Your task to perform on an android device: install app "ZOOM Cloud Meetings" Image 0: 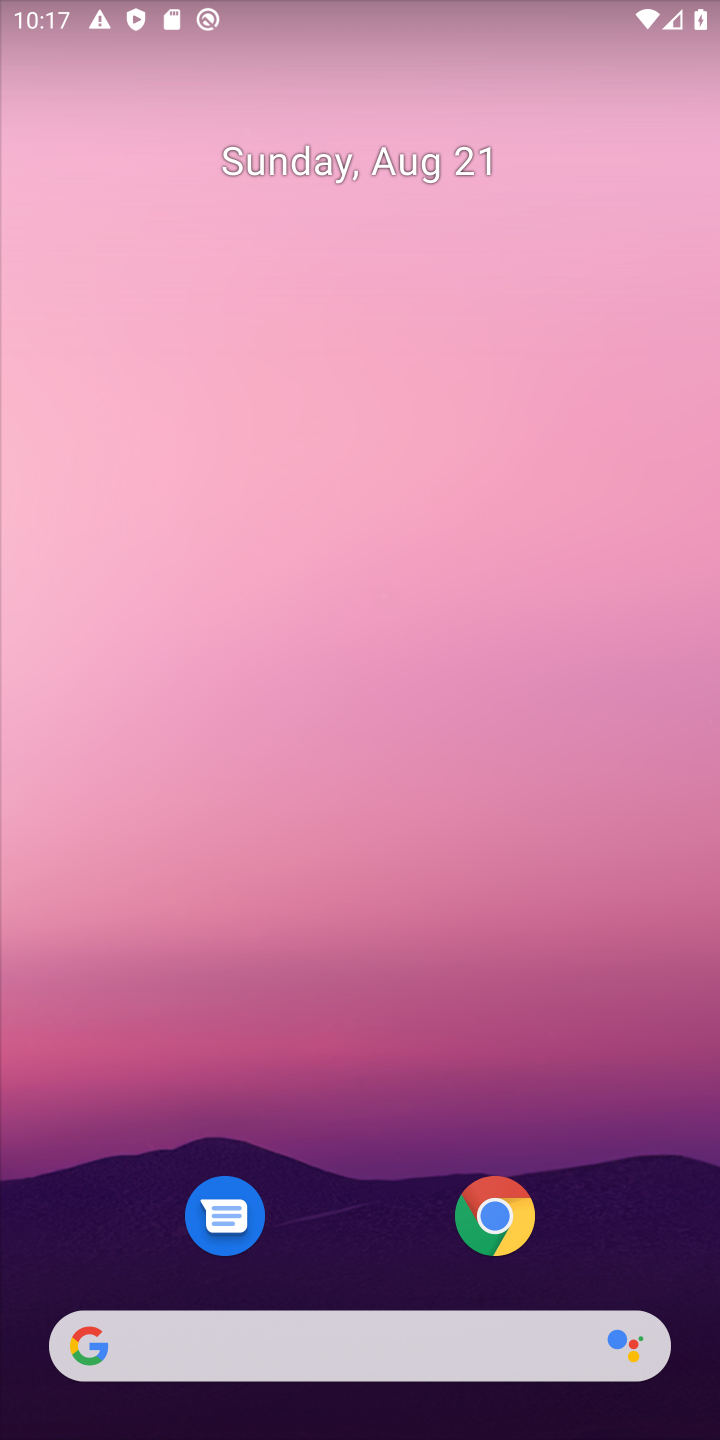
Step 0: drag from (100, 738) to (100, 123)
Your task to perform on an android device: install app "ZOOM Cloud Meetings" Image 1: 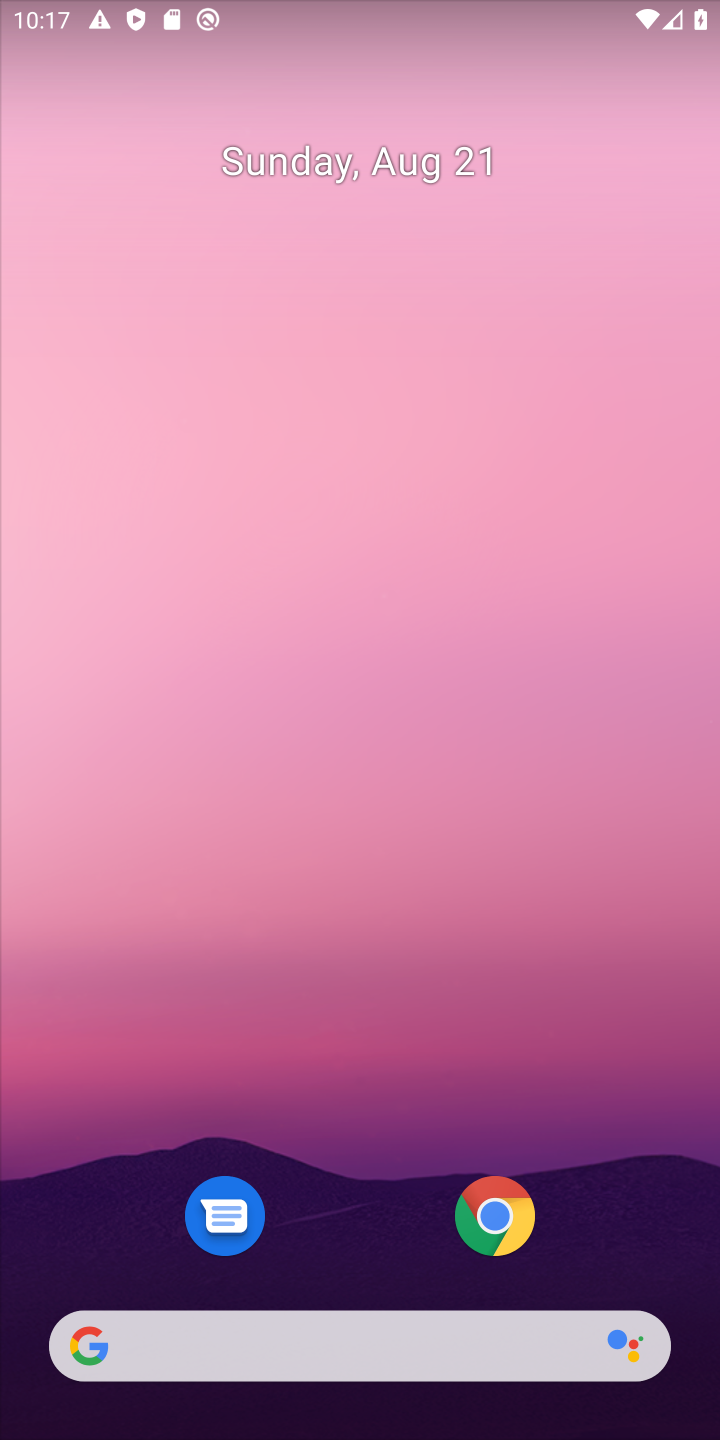
Step 1: drag from (358, 1235) to (385, 125)
Your task to perform on an android device: install app "ZOOM Cloud Meetings" Image 2: 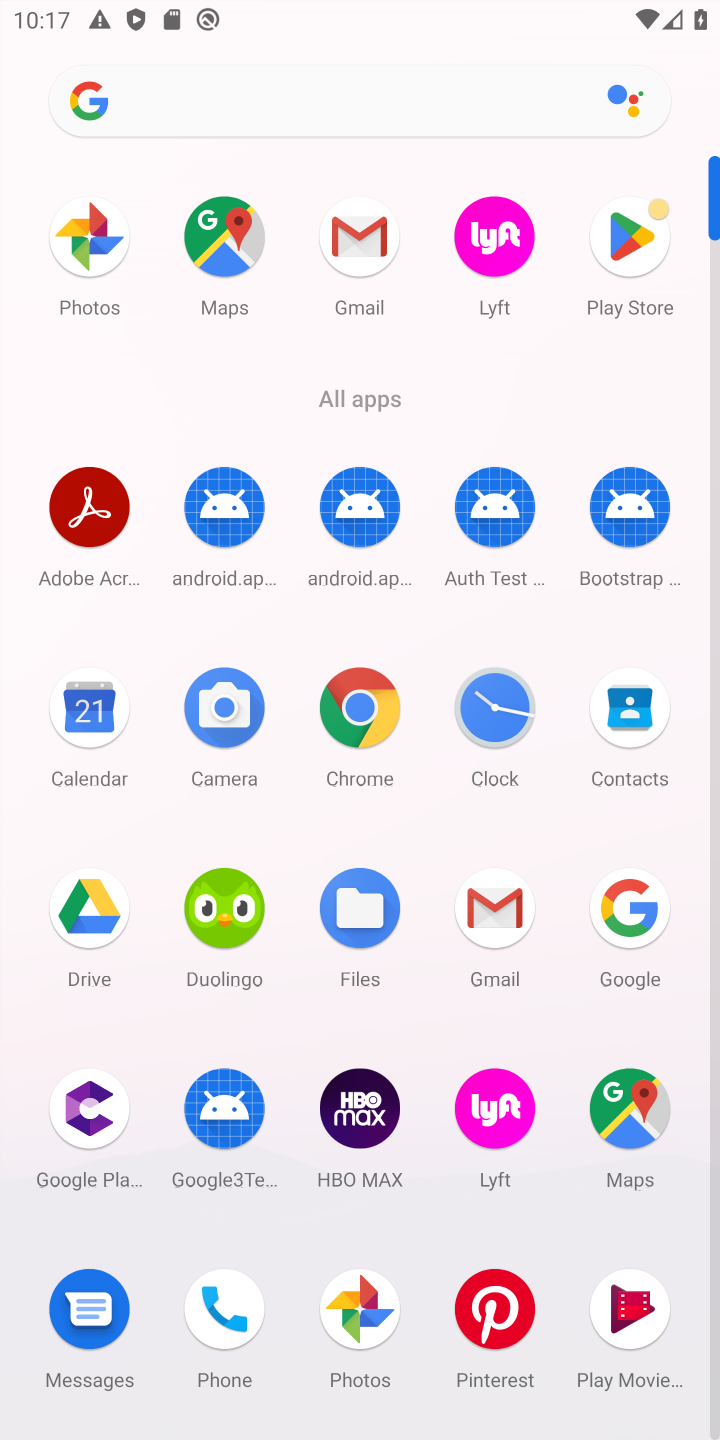
Step 2: click (615, 223)
Your task to perform on an android device: install app "ZOOM Cloud Meetings" Image 3: 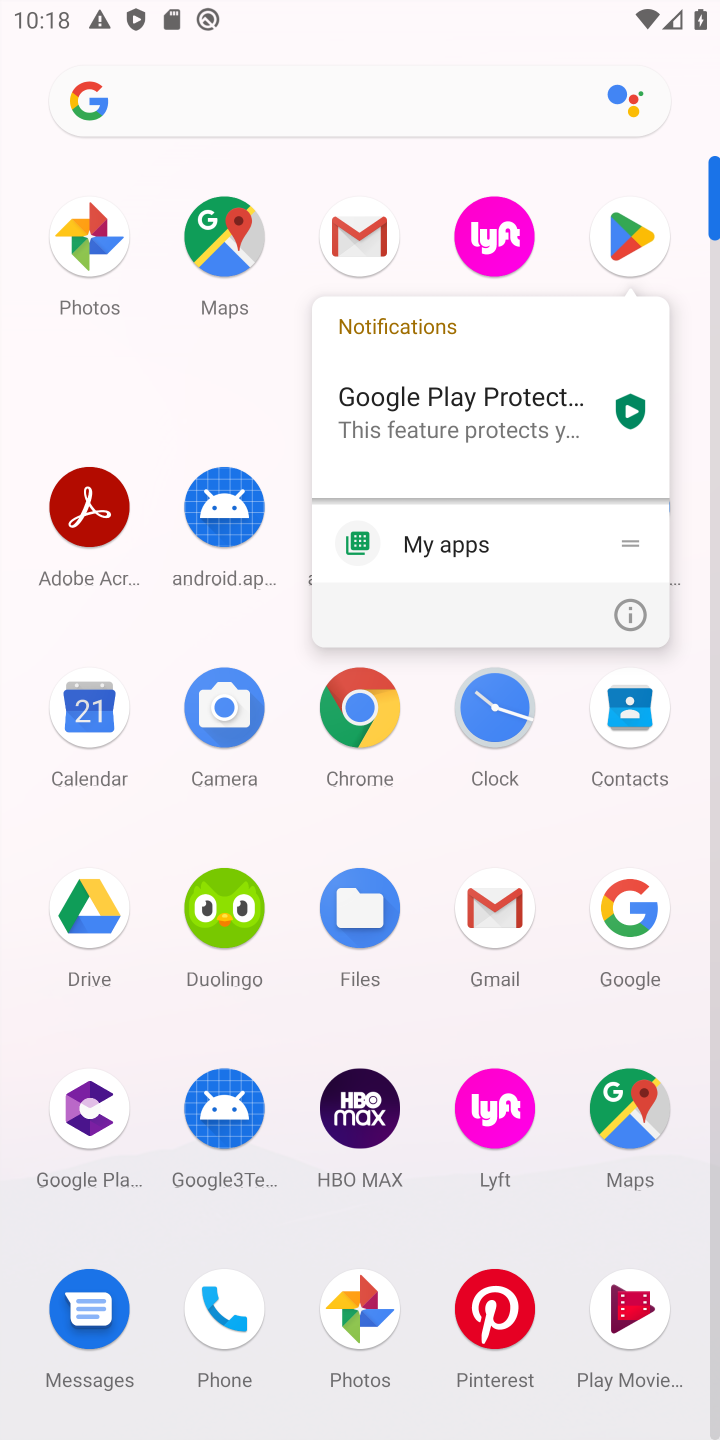
Step 3: click (610, 245)
Your task to perform on an android device: install app "ZOOM Cloud Meetings" Image 4: 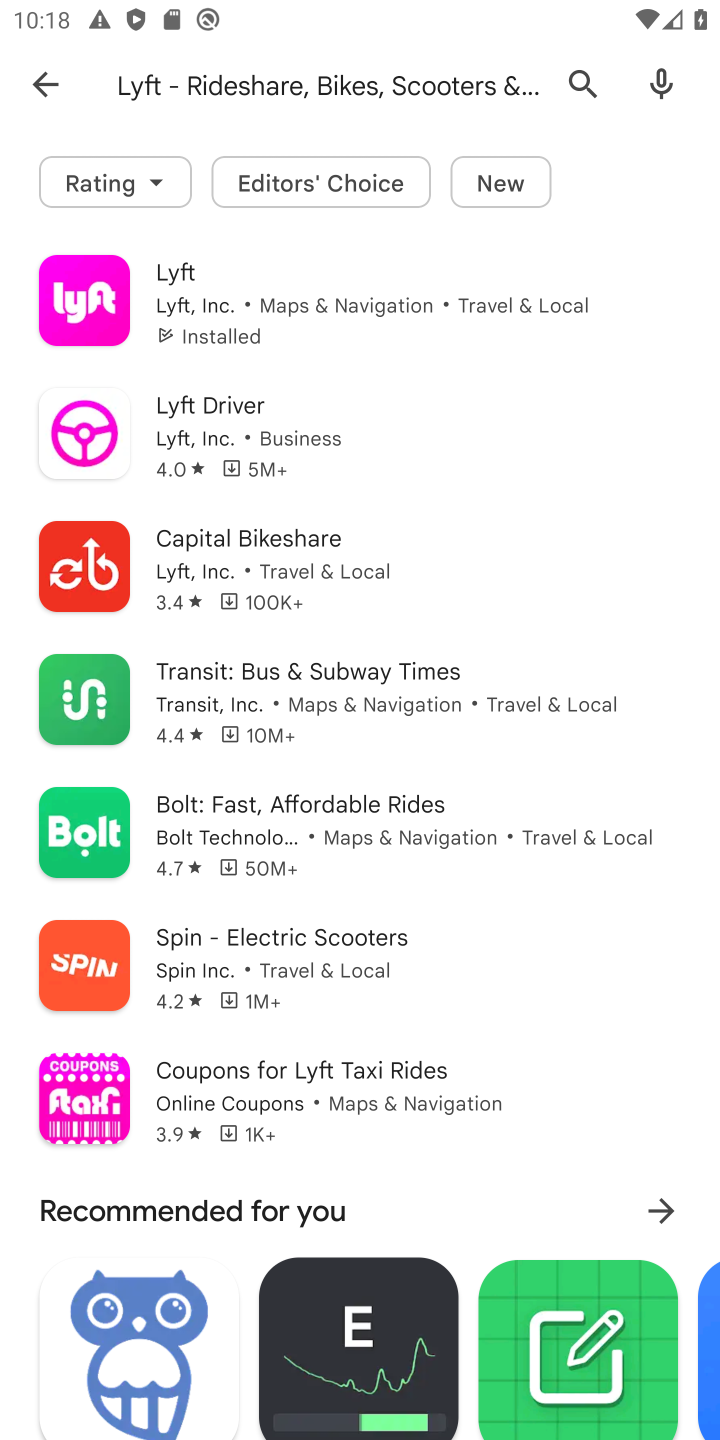
Step 4: press back button
Your task to perform on an android device: install app "ZOOM Cloud Meetings" Image 5: 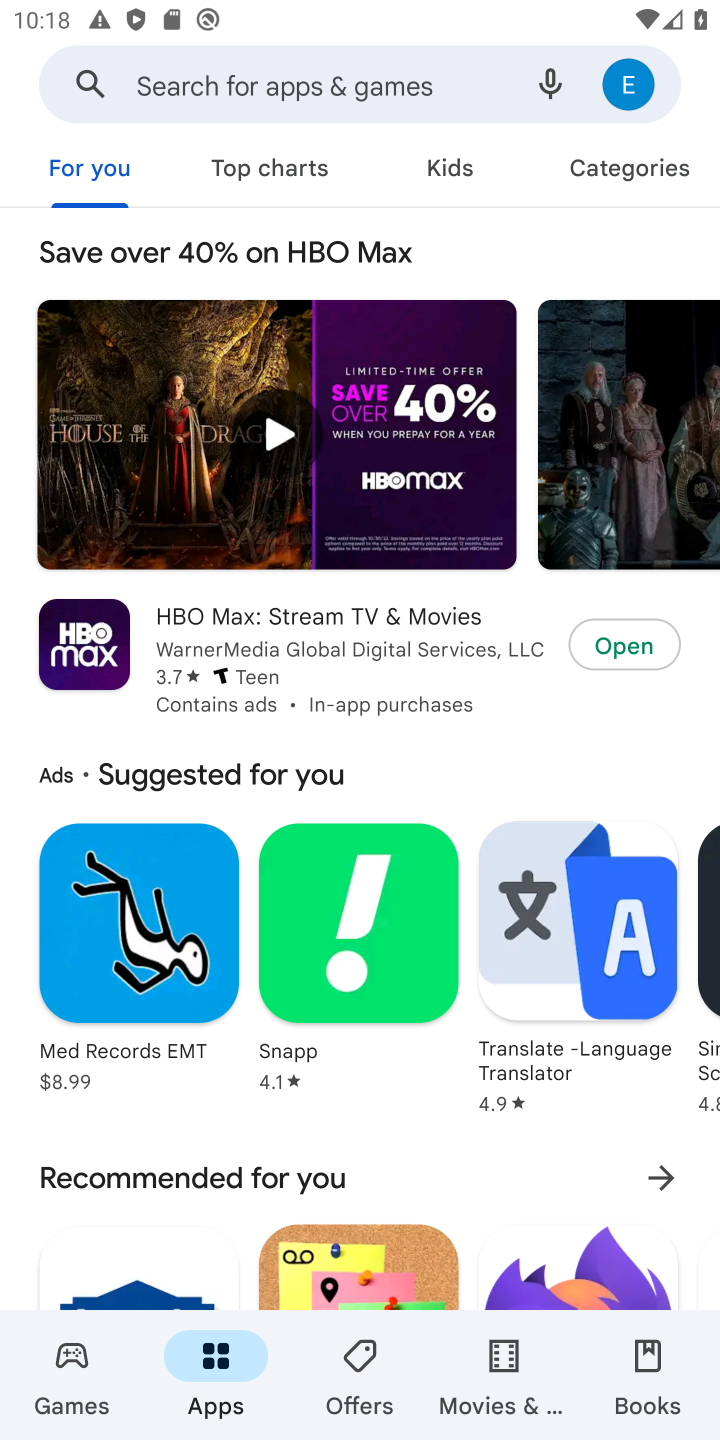
Step 5: click (369, 93)
Your task to perform on an android device: install app "ZOOM Cloud Meetings" Image 6: 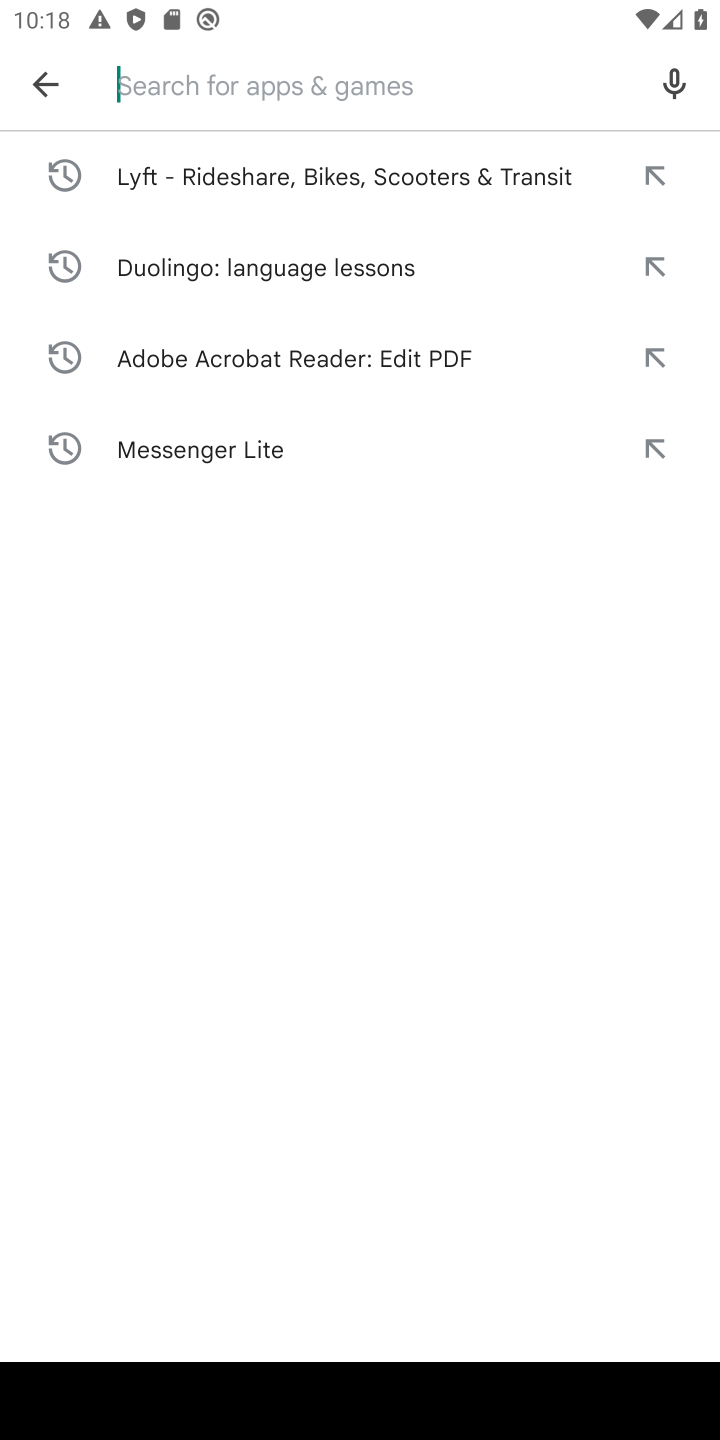
Step 6: type "ZOOM Cloud Meetings"
Your task to perform on an android device: install app "ZOOM Cloud Meetings" Image 7: 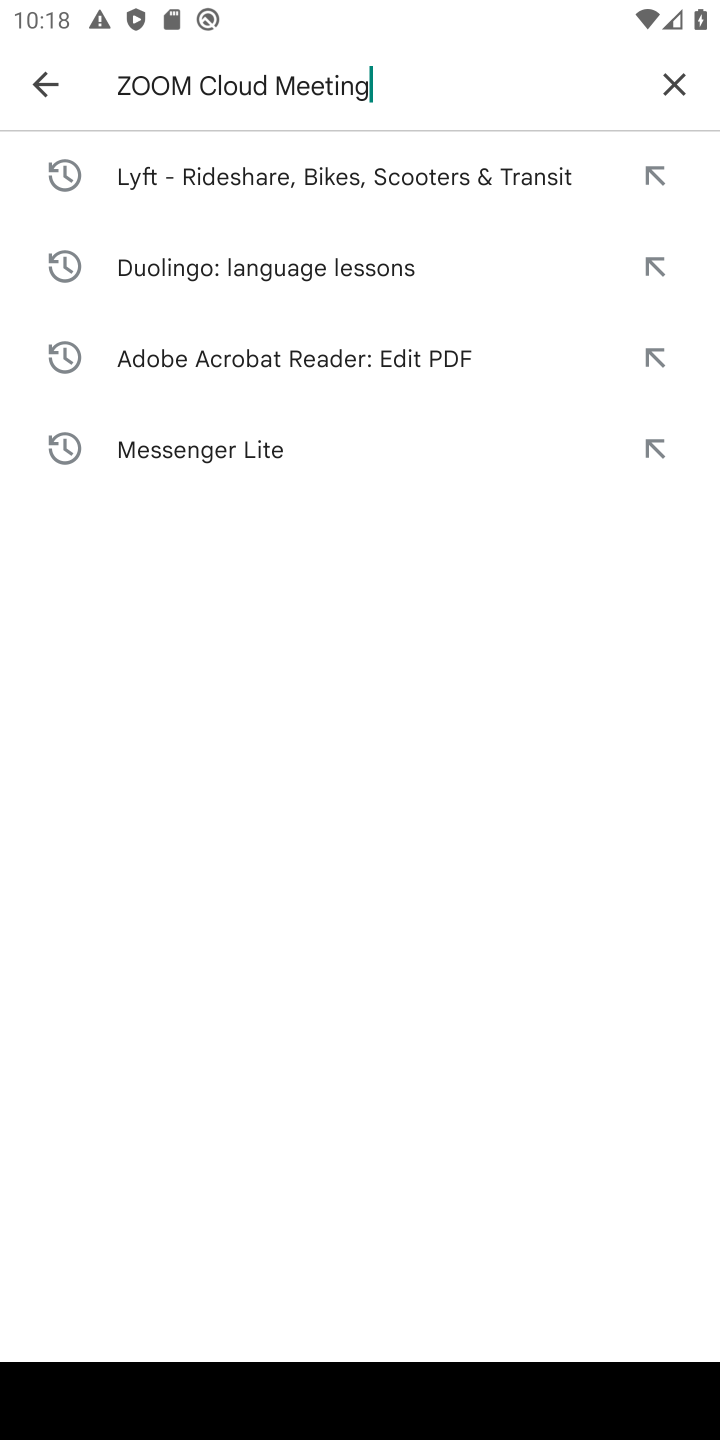
Step 7: press enter
Your task to perform on an android device: install app "ZOOM Cloud Meetings" Image 8: 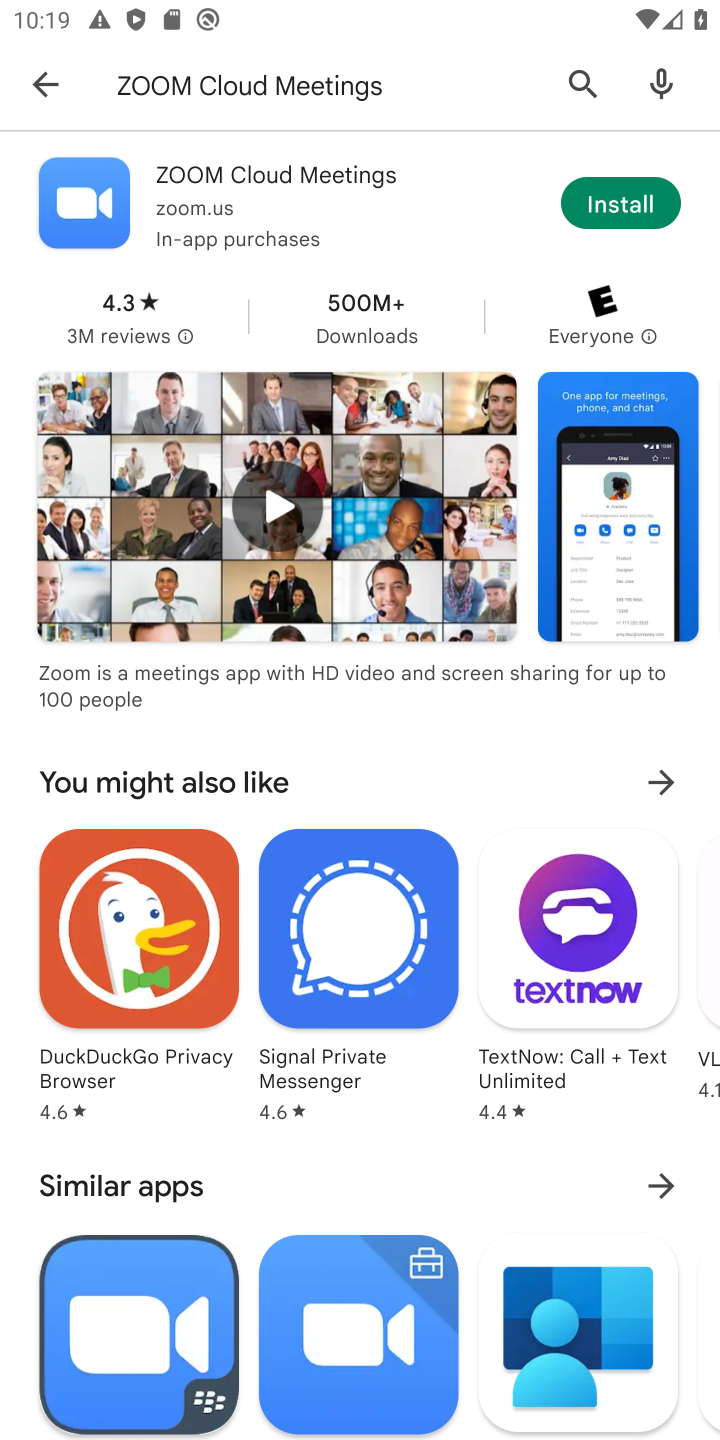
Step 8: click (622, 214)
Your task to perform on an android device: install app "ZOOM Cloud Meetings" Image 9: 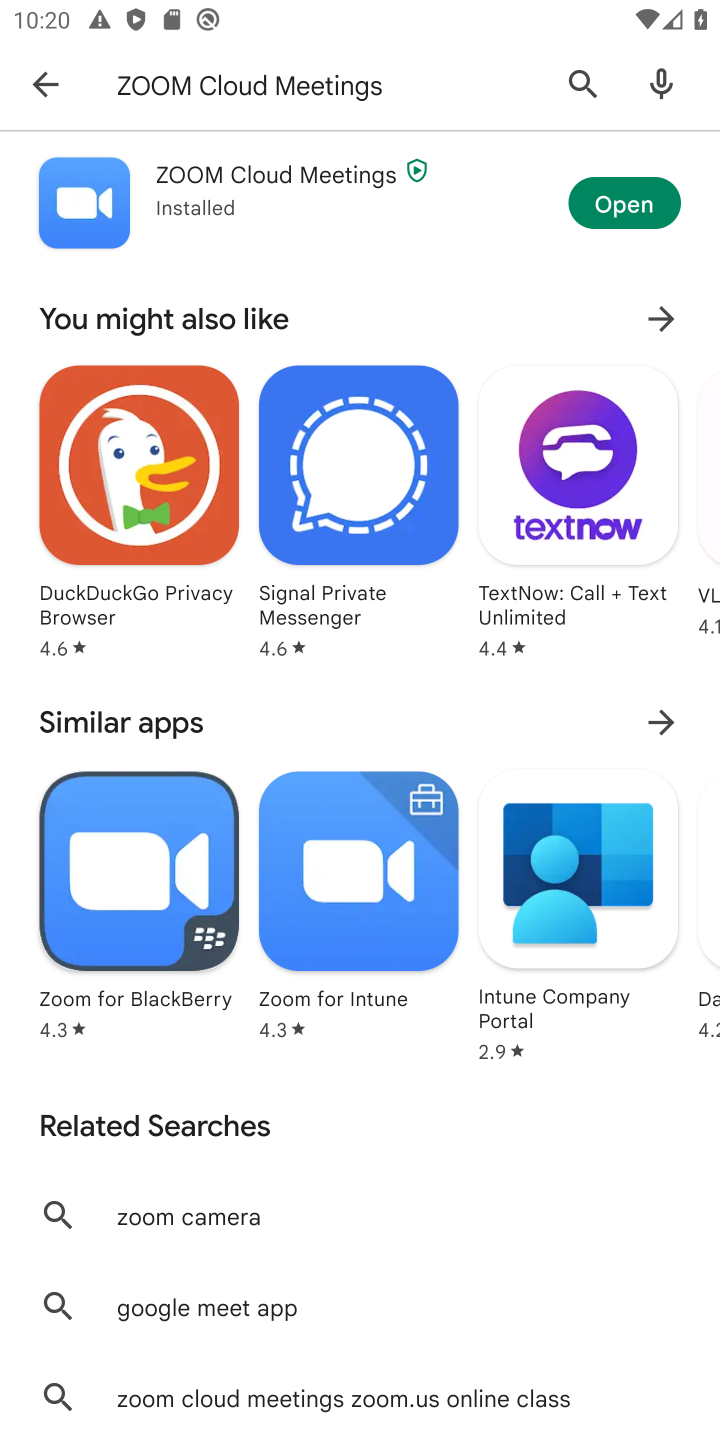
Step 9: click (643, 198)
Your task to perform on an android device: install app "ZOOM Cloud Meetings" Image 10: 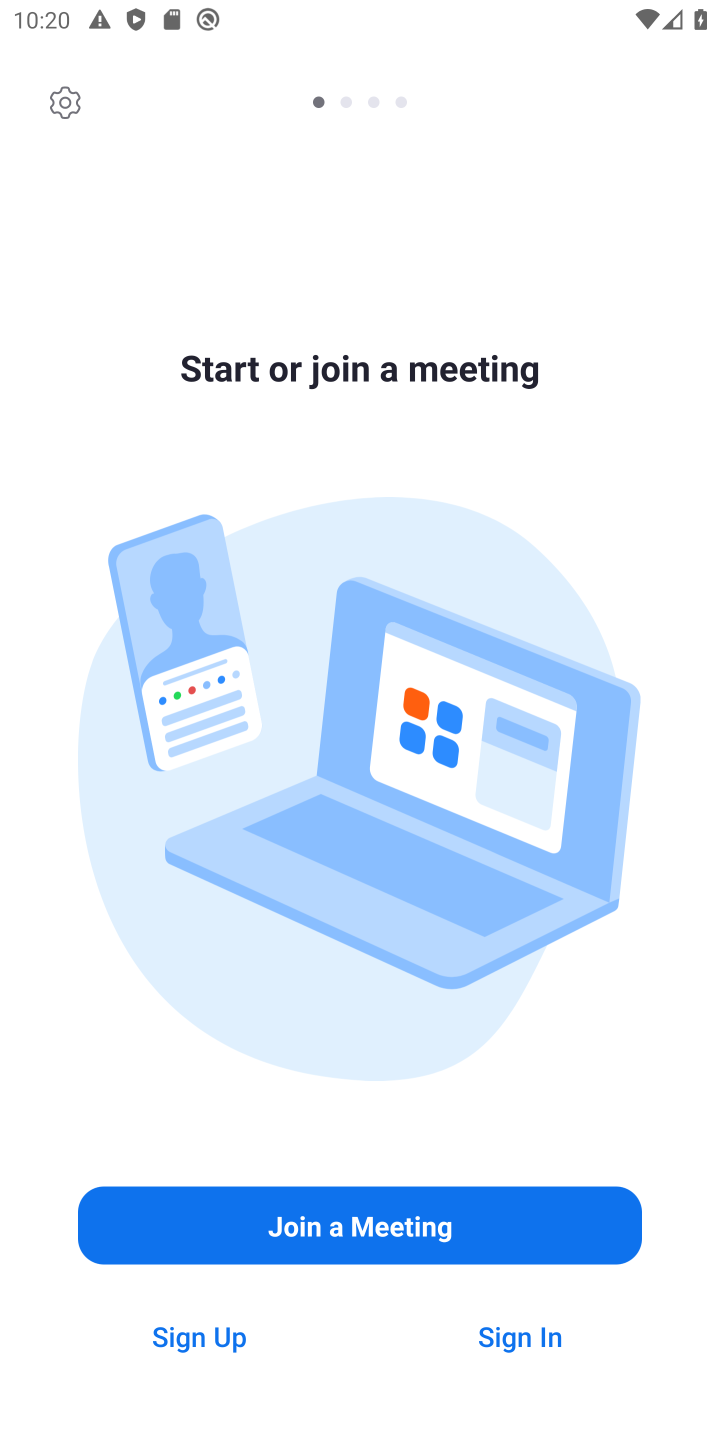
Step 10: task complete